Your task to perform on an android device: Search for vegetarian restaurants on Maps Image 0: 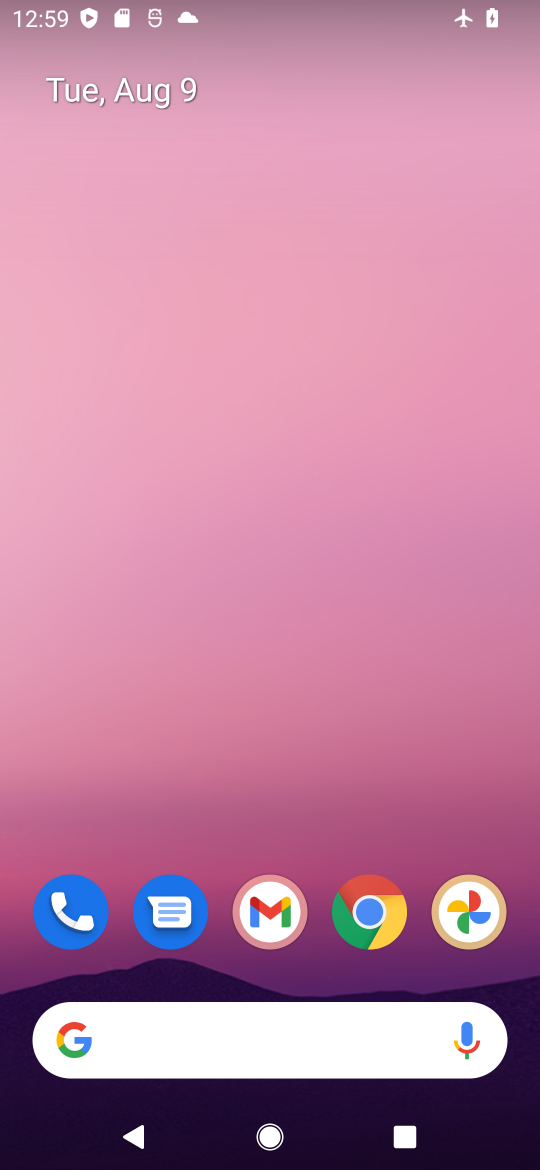
Step 0: drag from (276, 939) to (306, 435)
Your task to perform on an android device: Search for vegetarian restaurants on Maps Image 1: 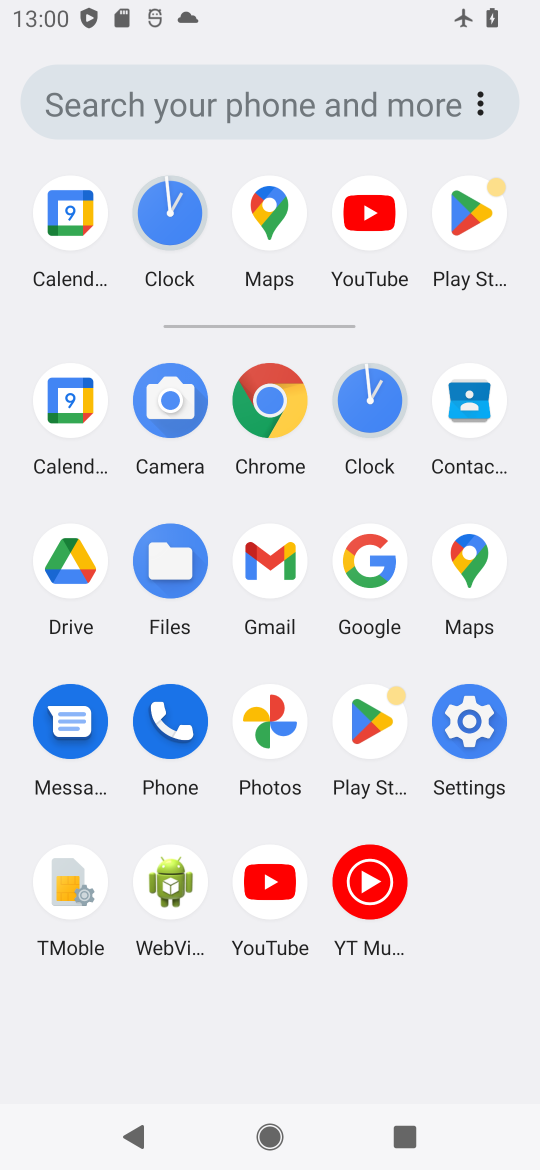
Step 1: click (481, 546)
Your task to perform on an android device: Search for vegetarian restaurants on Maps Image 2: 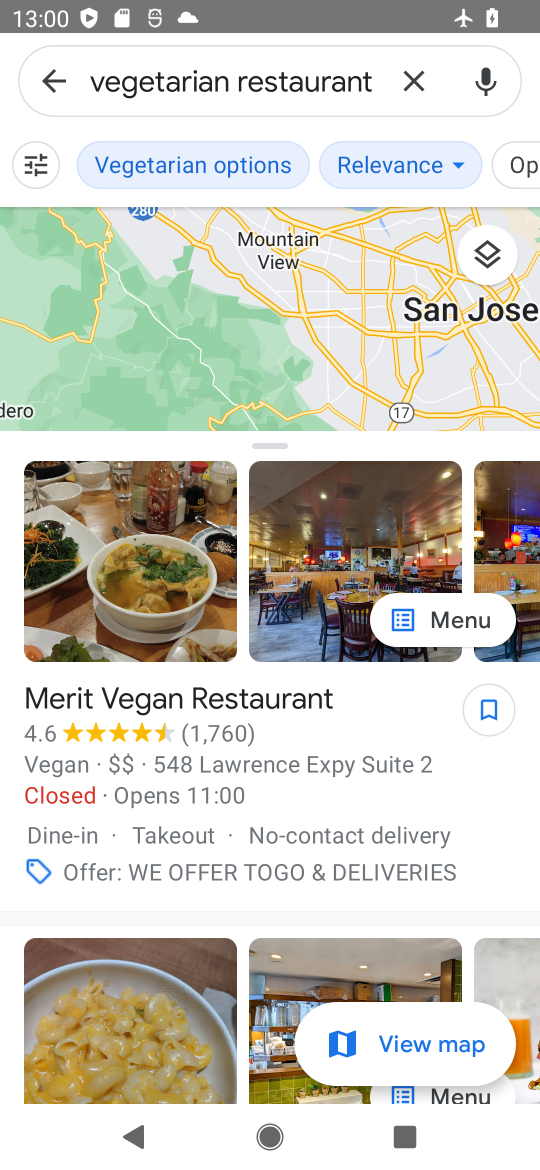
Step 2: task complete